Your task to perform on an android device: Show me popular videos on Youtube Image 0: 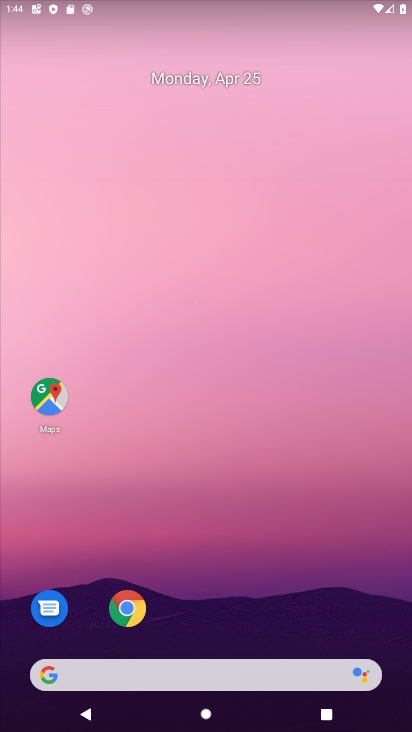
Step 0: drag from (200, 606) to (209, 267)
Your task to perform on an android device: Show me popular videos on Youtube Image 1: 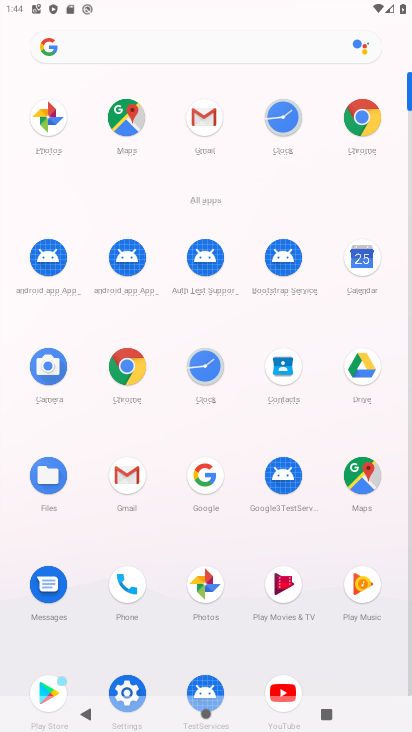
Step 1: click (290, 688)
Your task to perform on an android device: Show me popular videos on Youtube Image 2: 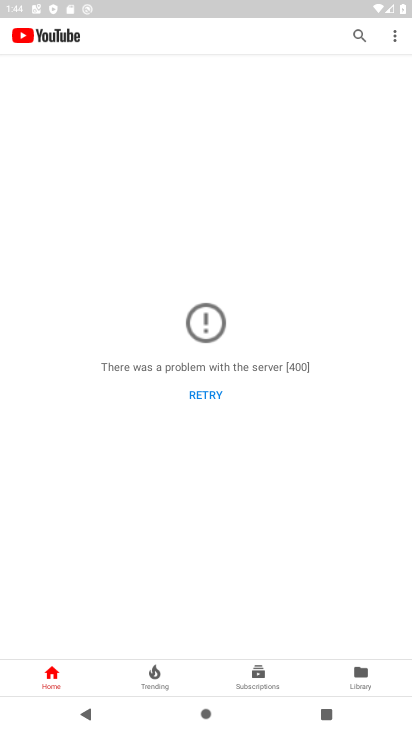
Step 2: task complete